Your task to perform on an android device: Turn off the flashlight Image 0: 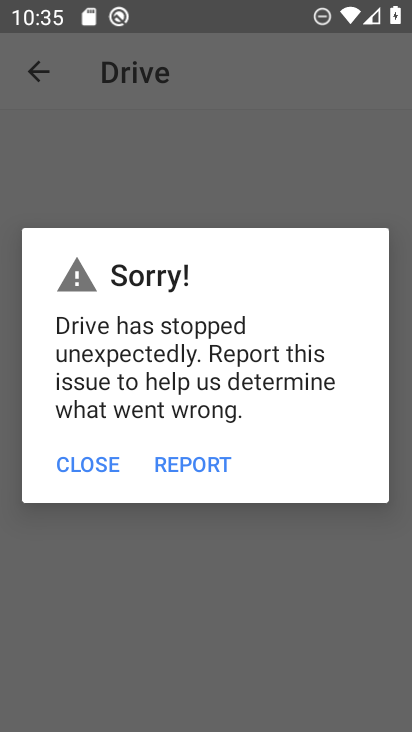
Step 0: press home button
Your task to perform on an android device: Turn off the flashlight Image 1: 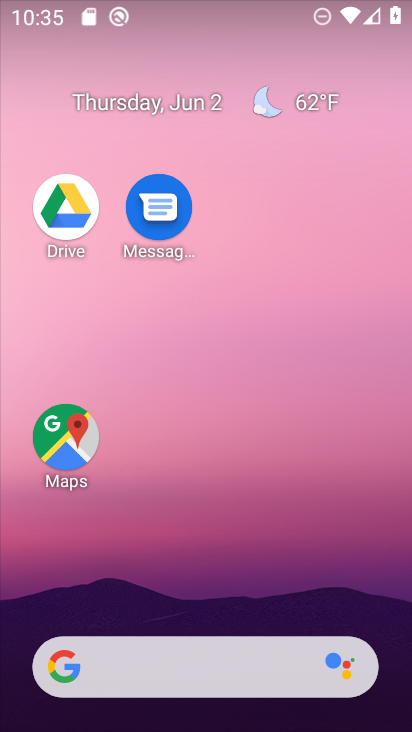
Step 1: drag from (196, 637) to (246, 63)
Your task to perform on an android device: Turn off the flashlight Image 2: 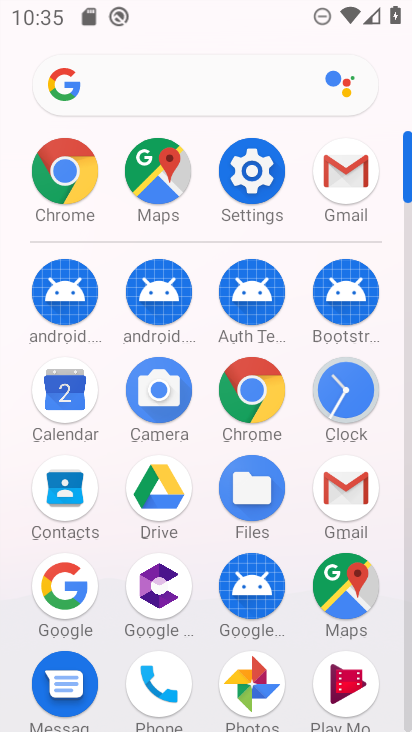
Step 2: click (251, 192)
Your task to perform on an android device: Turn off the flashlight Image 3: 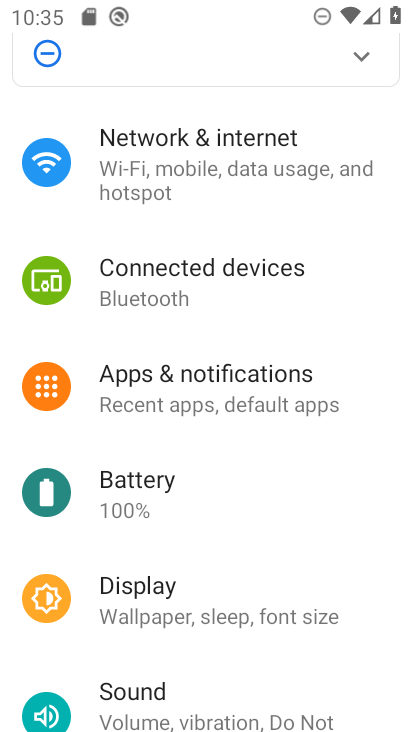
Step 3: task complete